Your task to perform on an android device: When is my next meeting? Image 0: 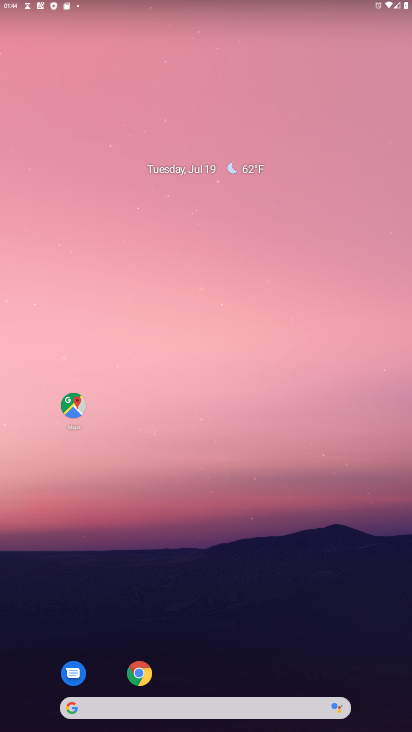
Step 0: drag from (236, 671) to (220, 243)
Your task to perform on an android device: When is my next meeting? Image 1: 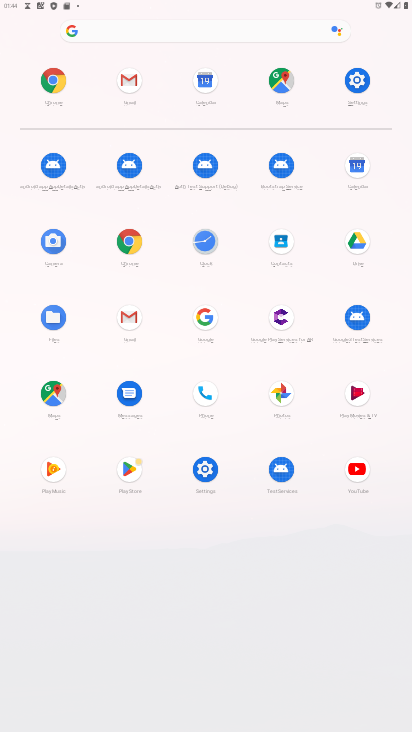
Step 1: click (351, 160)
Your task to perform on an android device: When is my next meeting? Image 2: 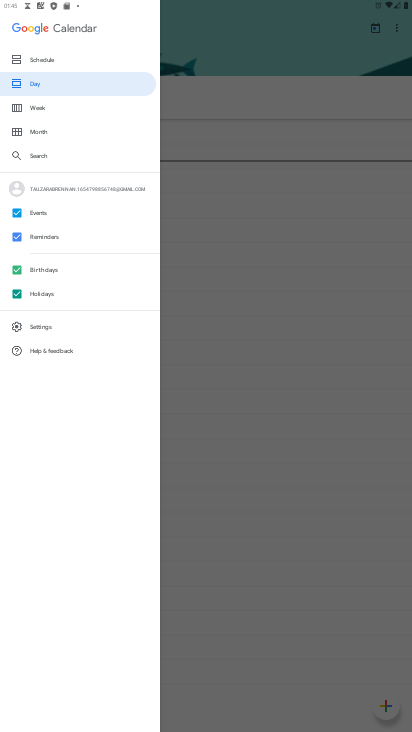
Step 2: click (52, 124)
Your task to perform on an android device: When is my next meeting? Image 3: 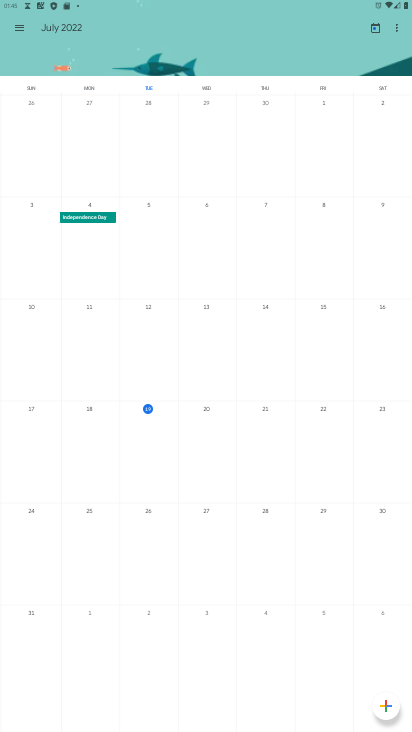
Step 3: task complete